Your task to perform on an android device: Go to display settings Image 0: 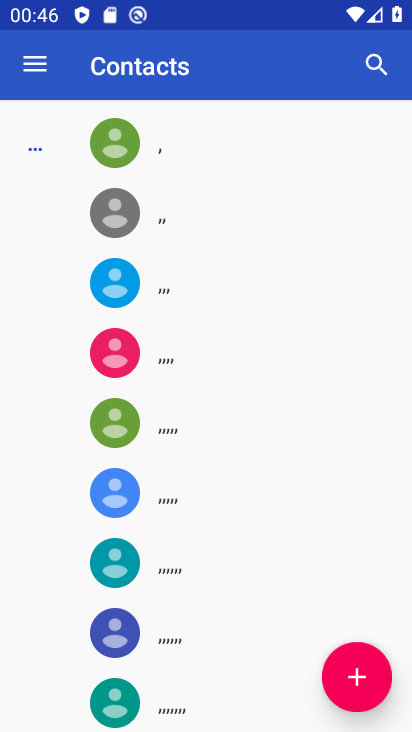
Step 0: press home button
Your task to perform on an android device: Go to display settings Image 1: 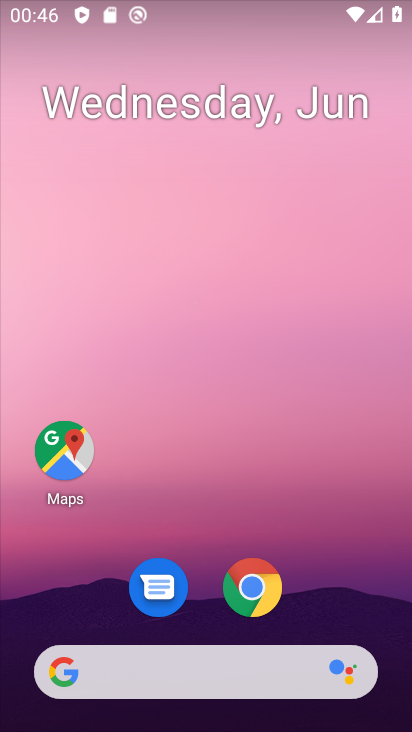
Step 1: drag from (266, 485) to (227, 177)
Your task to perform on an android device: Go to display settings Image 2: 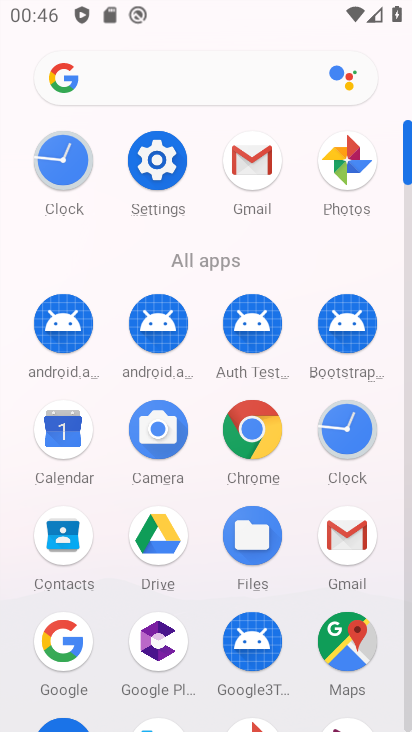
Step 2: click (157, 170)
Your task to perform on an android device: Go to display settings Image 3: 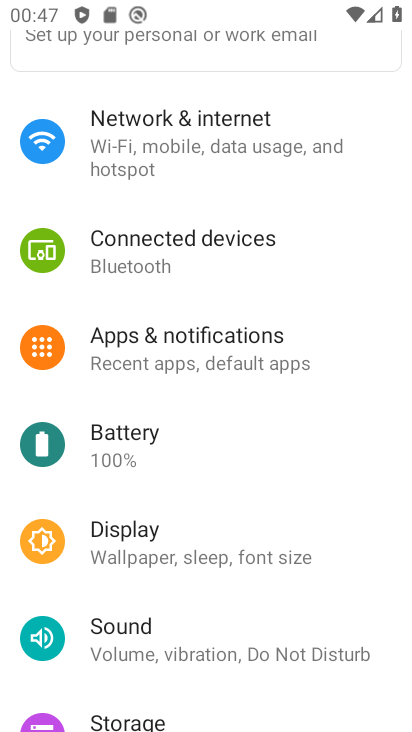
Step 3: drag from (249, 434) to (287, 36)
Your task to perform on an android device: Go to display settings Image 4: 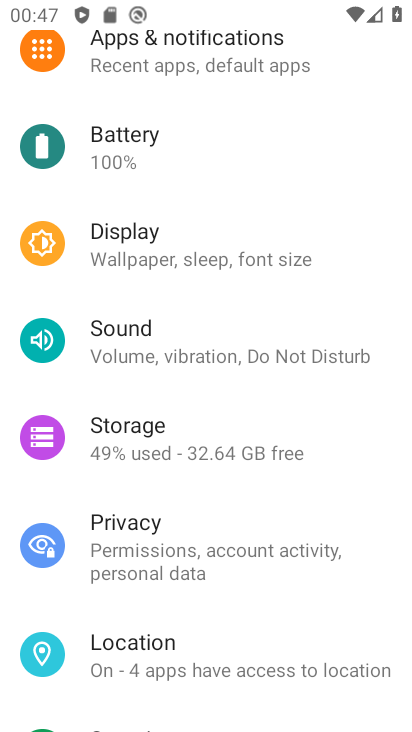
Step 4: click (207, 247)
Your task to perform on an android device: Go to display settings Image 5: 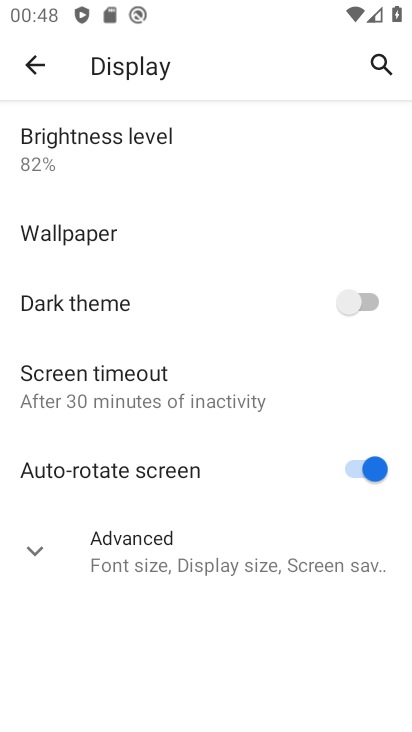
Step 5: task complete